Your task to perform on an android device: turn on data saver in the chrome app Image 0: 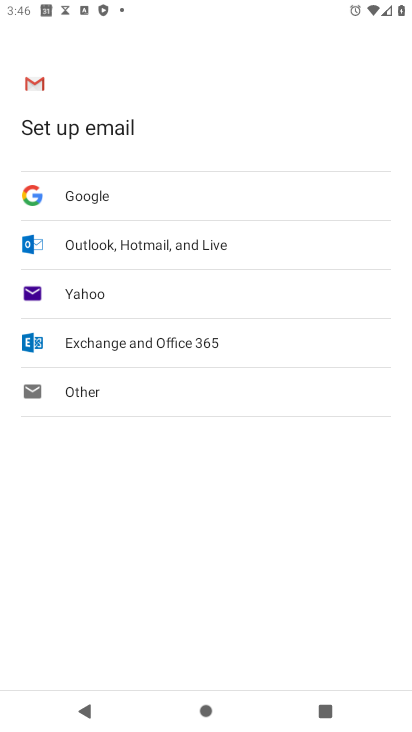
Step 0: press home button
Your task to perform on an android device: turn on data saver in the chrome app Image 1: 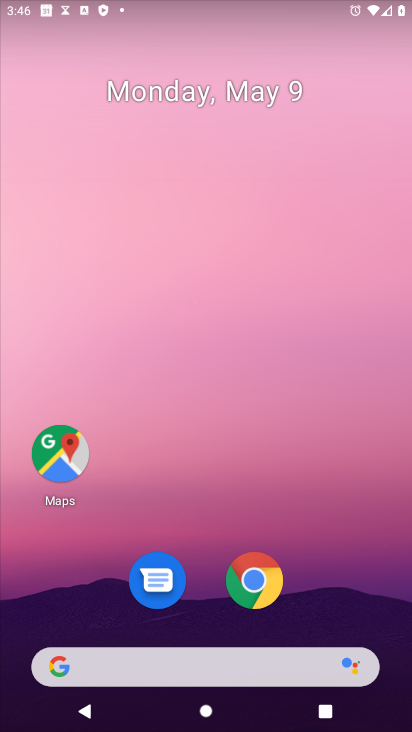
Step 1: click (248, 598)
Your task to perform on an android device: turn on data saver in the chrome app Image 2: 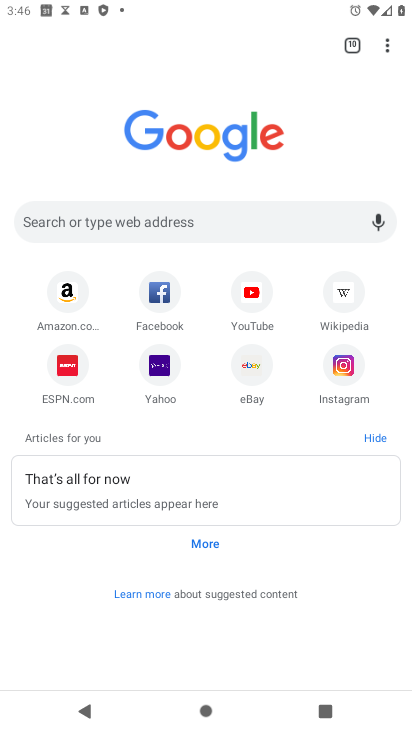
Step 2: click (382, 51)
Your task to perform on an android device: turn on data saver in the chrome app Image 3: 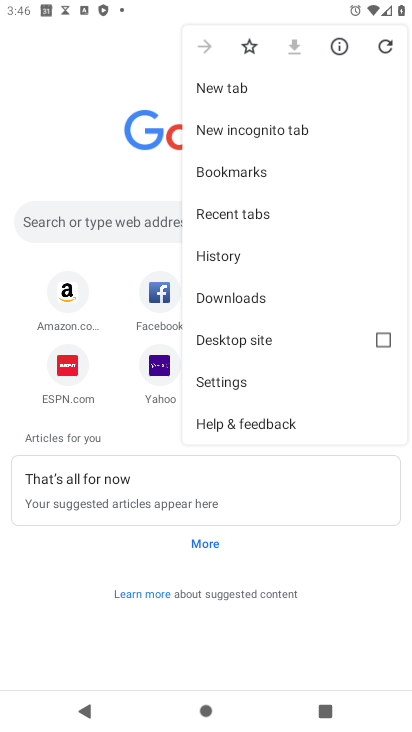
Step 3: click (265, 374)
Your task to perform on an android device: turn on data saver in the chrome app Image 4: 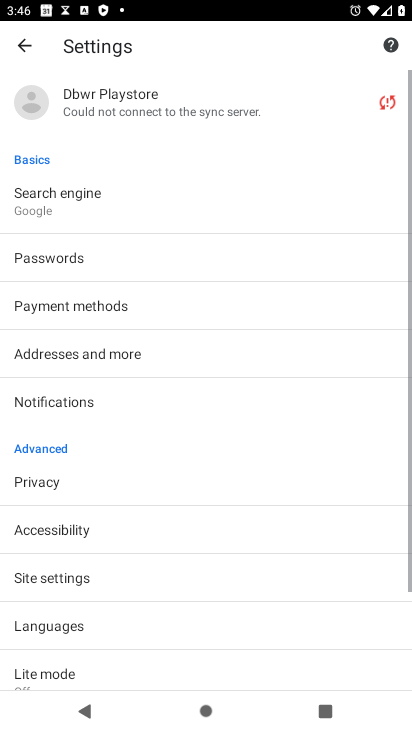
Step 4: drag from (154, 612) to (221, 137)
Your task to perform on an android device: turn on data saver in the chrome app Image 5: 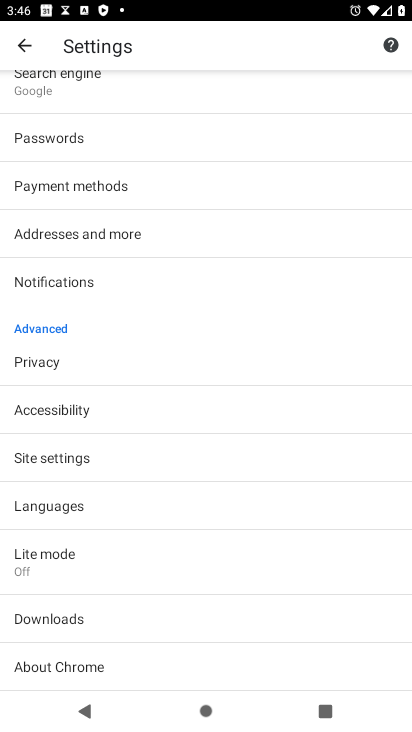
Step 5: click (92, 549)
Your task to perform on an android device: turn on data saver in the chrome app Image 6: 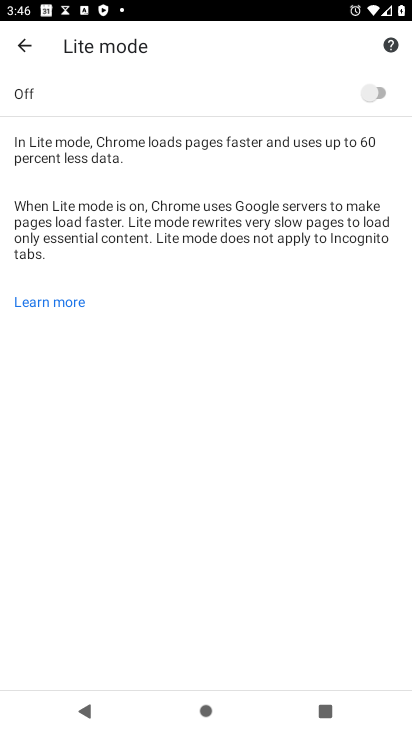
Step 6: click (371, 95)
Your task to perform on an android device: turn on data saver in the chrome app Image 7: 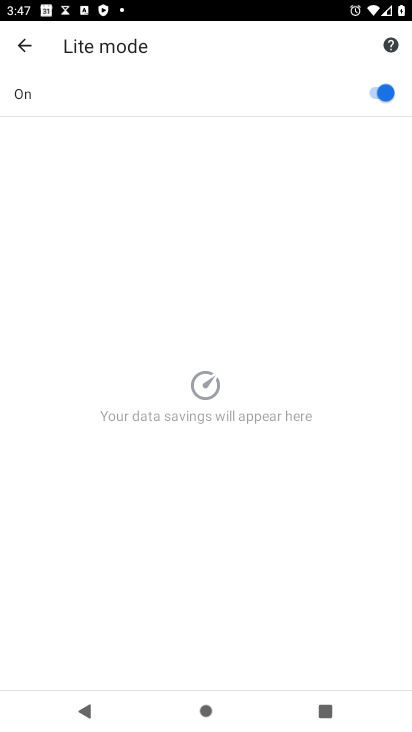
Step 7: task complete